Your task to perform on an android device: turn on bluetooth scan Image 0: 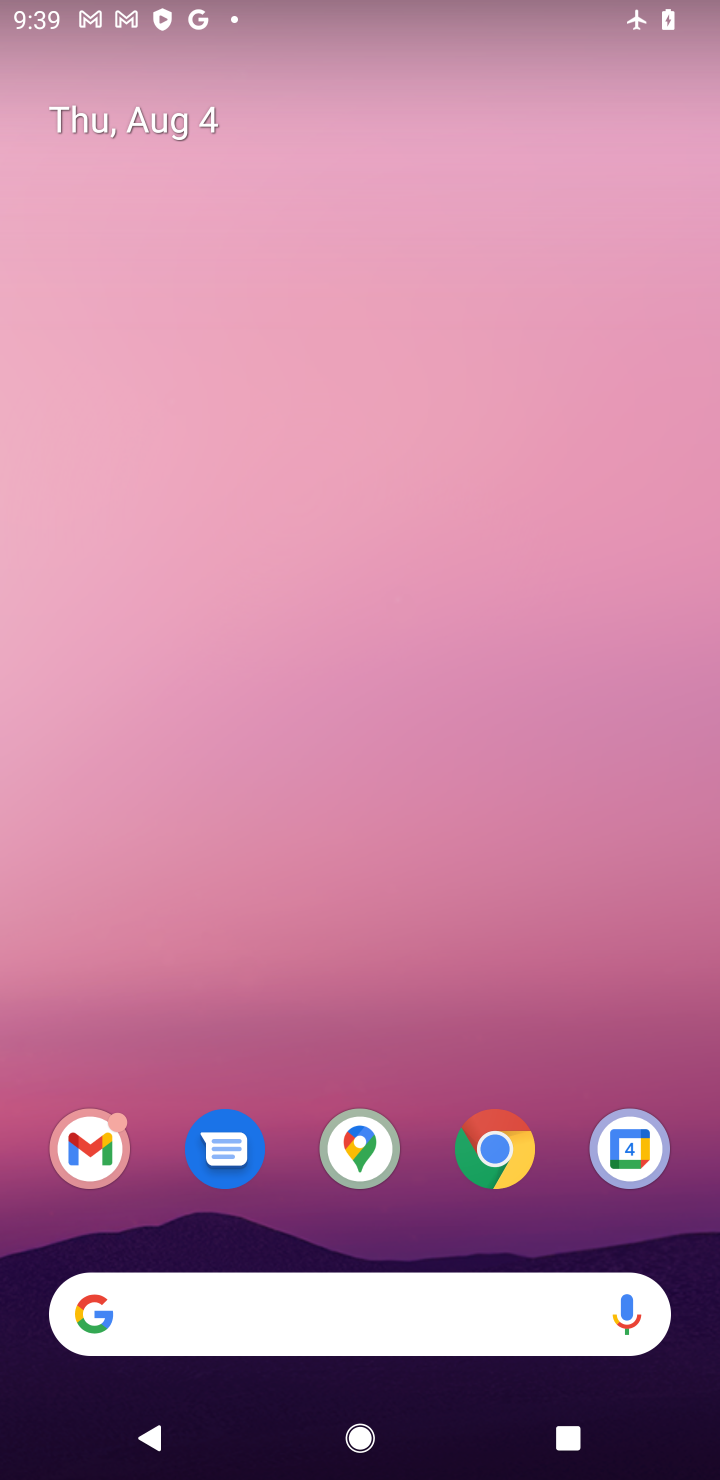
Step 0: drag from (563, 1247) to (578, 389)
Your task to perform on an android device: turn on bluetooth scan Image 1: 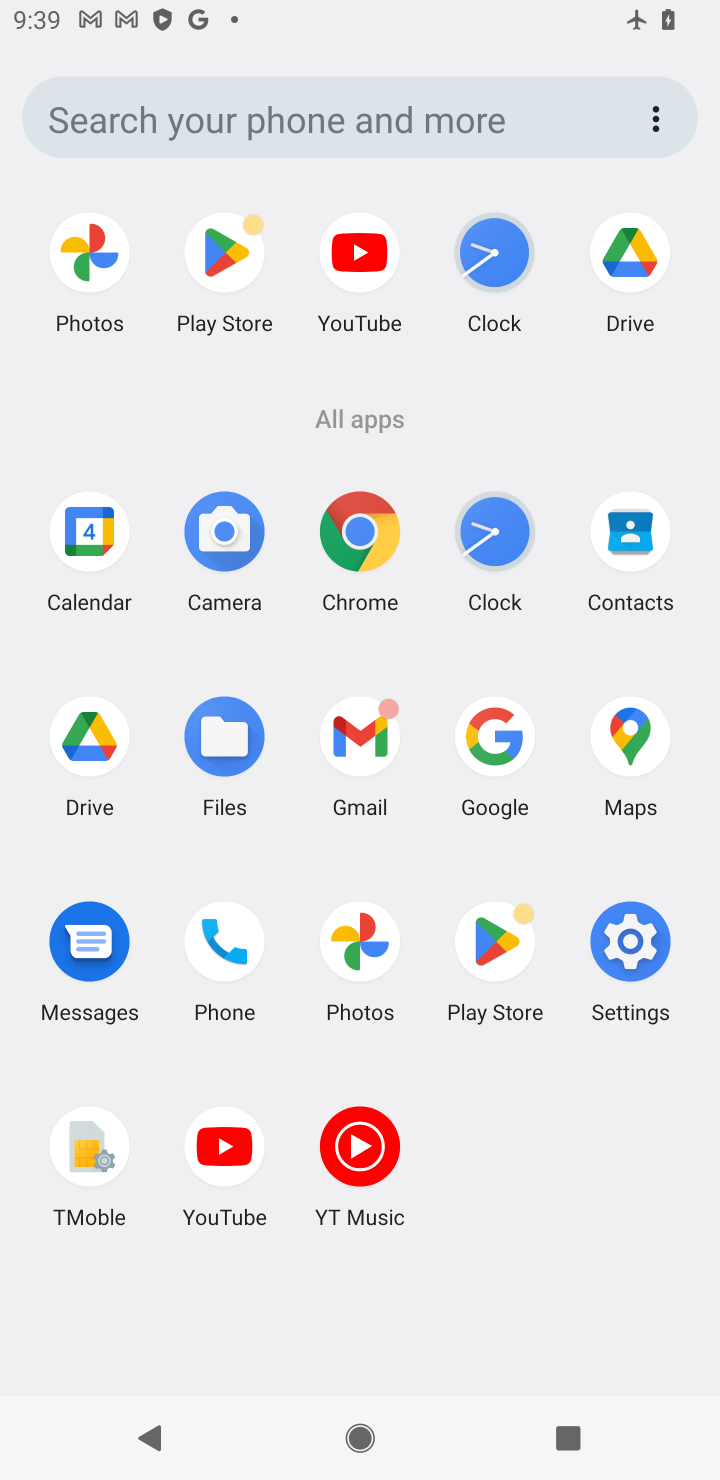
Step 1: click (627, 943)
Your task to perform on an android device: turn on bluetooth scan Image 2: 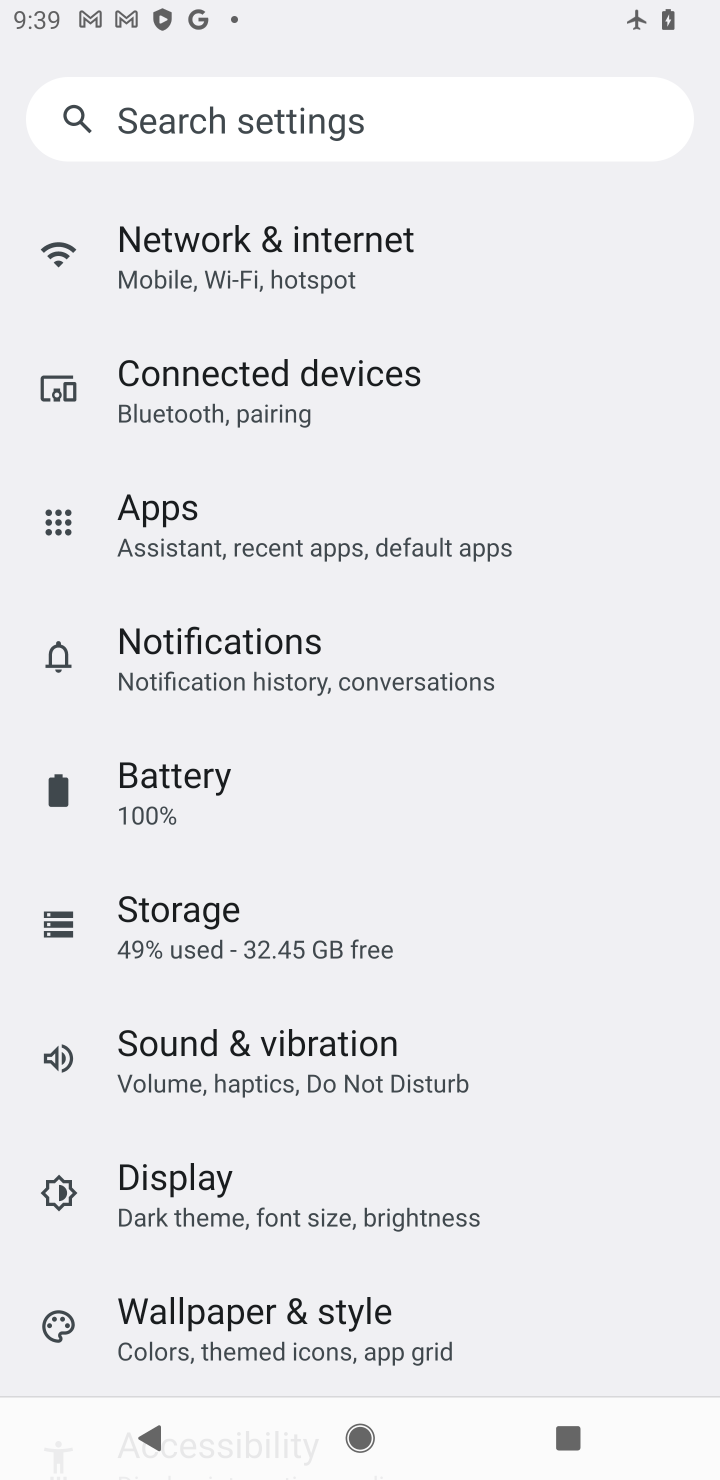
Step 2: drag from (570, 1278) to (565, 423)
Your task to perform on an android device: turn on bluetooth scan Image 3: 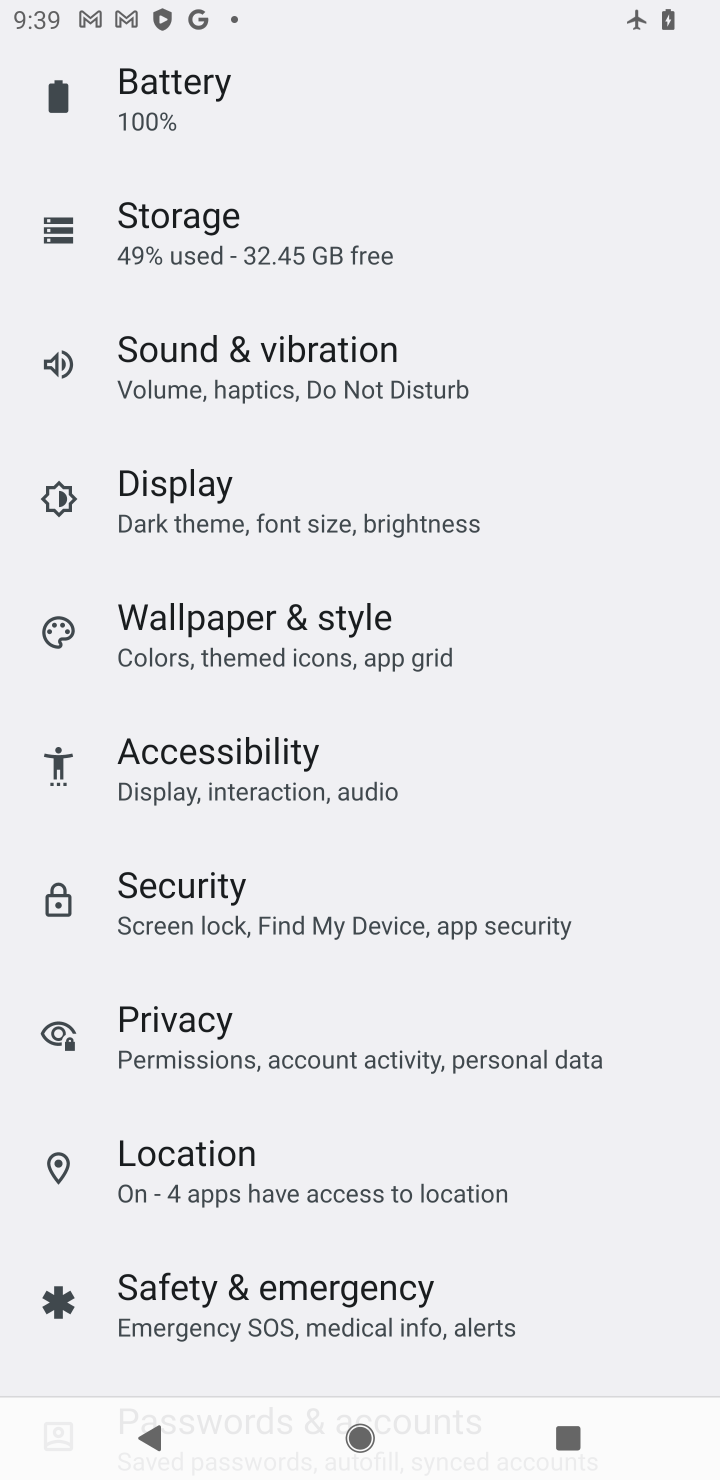
Step 3: click (159, 1167)
Your task to perform on an android device: turn on bluetooth scan Image 4: 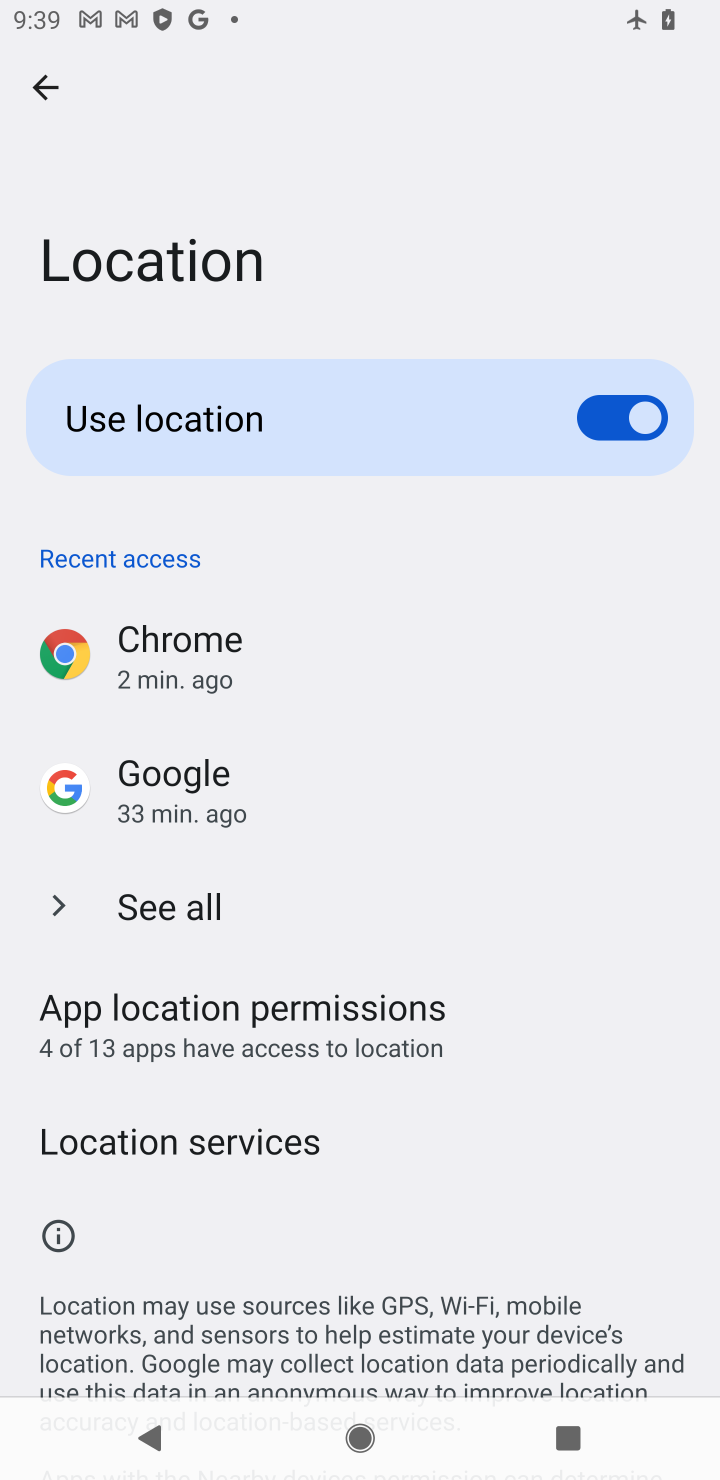
Step 4: click (162, 1137)
Your task to perform on an android device: turn on bluetooth scan Image 5: 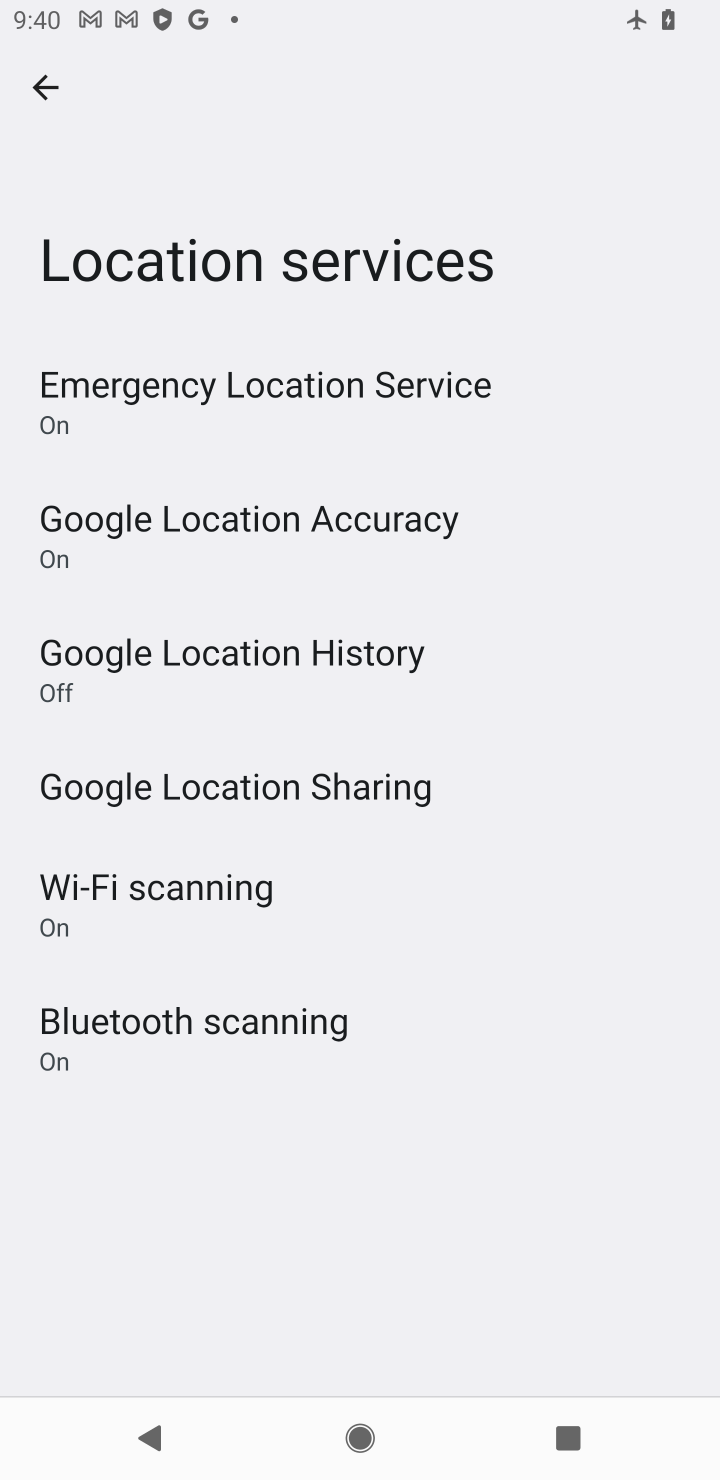
Step 5: task complete